Your task to perform on an android device: stop showing notifications on the lock screen Image 0: 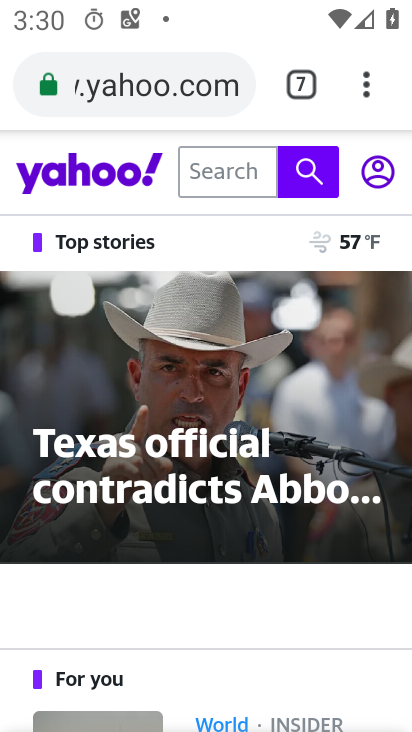
Step 0: press home button
Your task to perform on an android device: stop showing notifications on the lock screen Image 1: 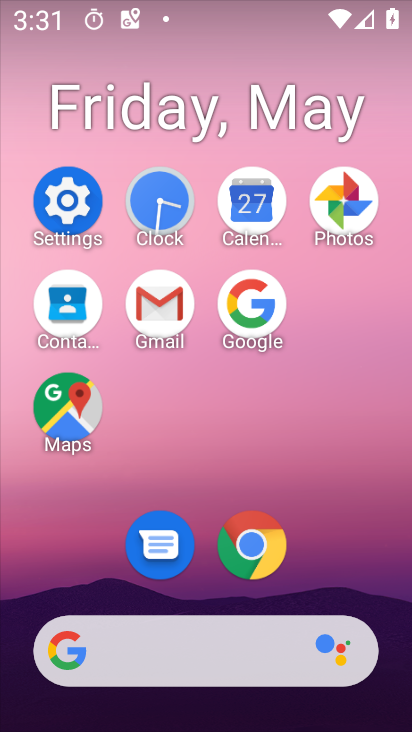
Step 1: click (95, 219)
Your task to perform on an android device: stop showing notifications on the lock screen Image 2: 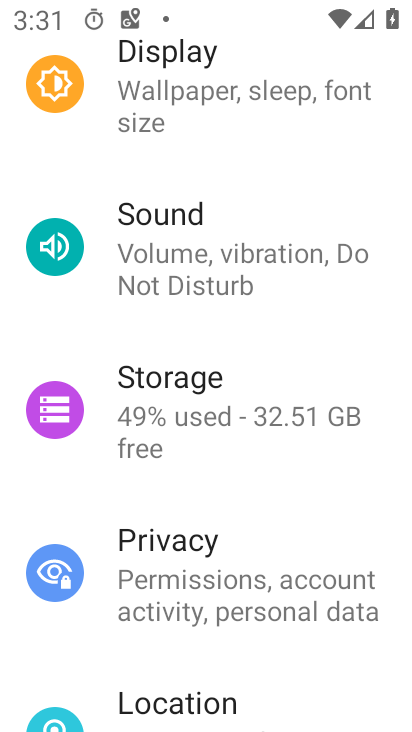
Step 2: drag from (244, 644) to (288, 231)
Your task to perform on an android device: stop showing notifications on the lock screen Image 3: 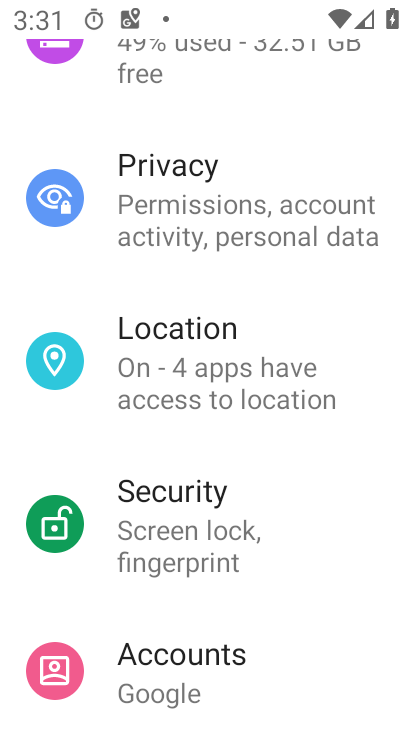
Step 3: drag from (277, 285) to (308, 728)
Your task to perform on an android device: stop showing notifications on the lock screen Image 4: 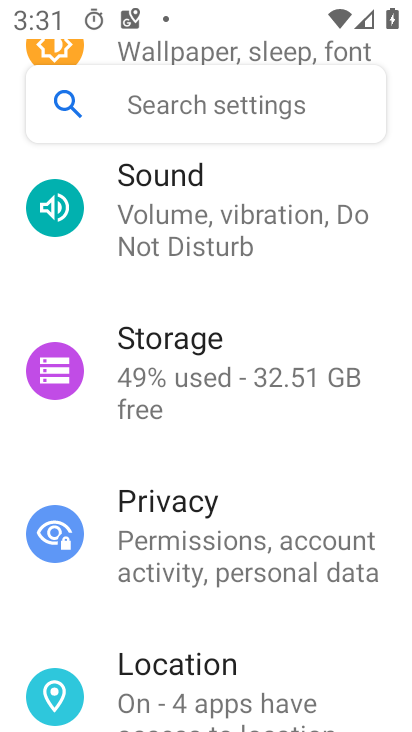
Step 4: drag from (266, 219) to (296, 712)
Your task to perform on an android device: stop showing notifications on the lock screen Image 5: 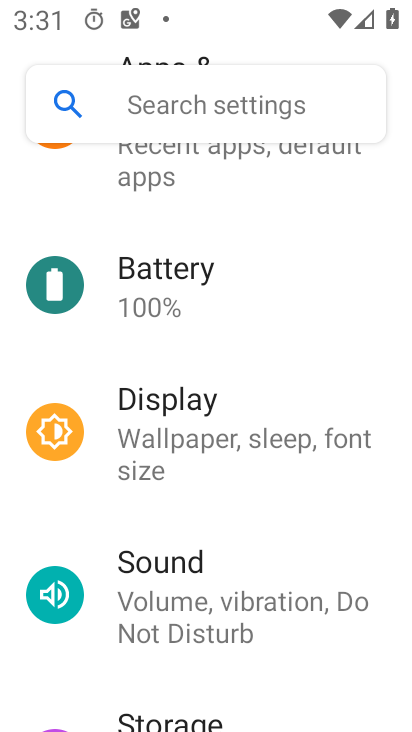
Step 5: drag from (273, 253) to (282, 672)
Your task to perform on an android device: stop showing notifications on the lock screen Image 6: 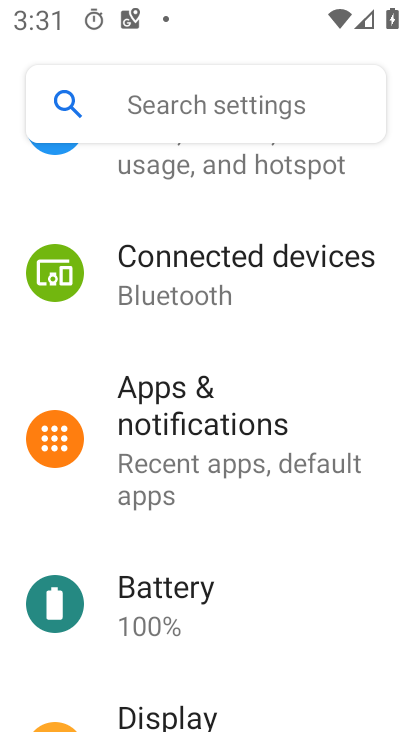
Step 6: drag from (244, 231) to (285, 596)
Your task to perform on an android device: stop showing notifications on the lock screen Image 7: 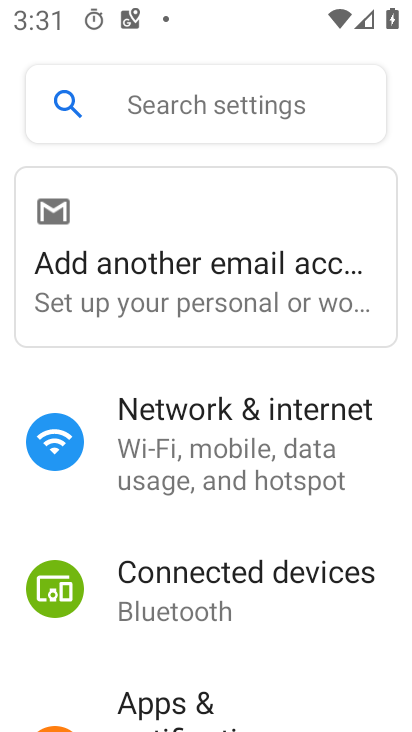
Step 7: drag from (282, 611) to (290, 210)
Your task to perform on an android device: stop showing notifications on the lock screen Image 8: 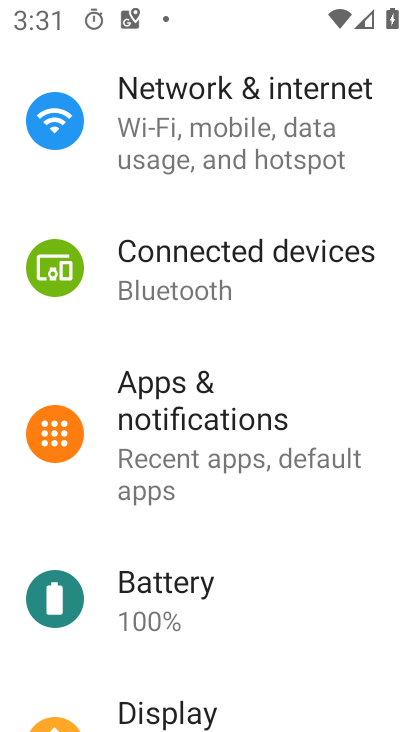
Step 8: click (219, 396)
Your task to perform on an android device: stop showing notifications on the lock screen Image 9: 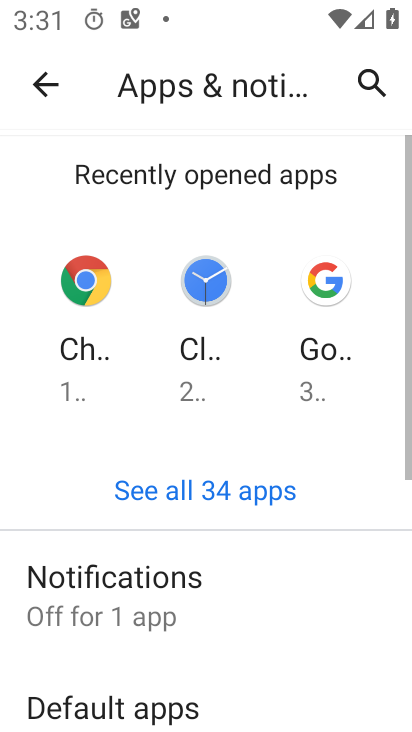
Step 9: click (203, 601)
Your task to perform on an android device: stop showing notifications on the lock screen Image 10: 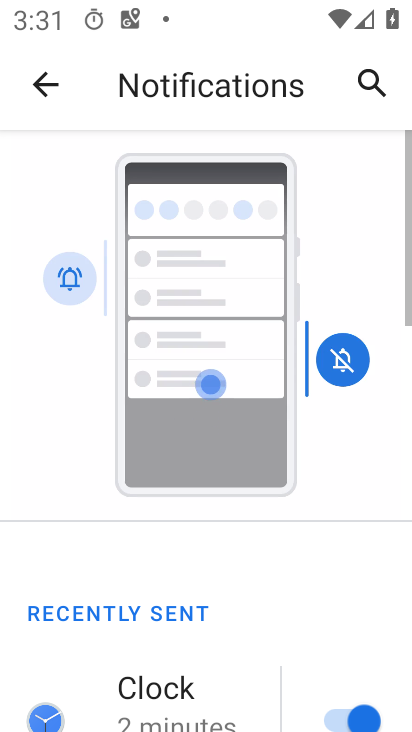
Step 10: drag from (201, 594) to (227, 193)
Your task to perform on an android device: stop showing notifications on the lock screen Image 11: 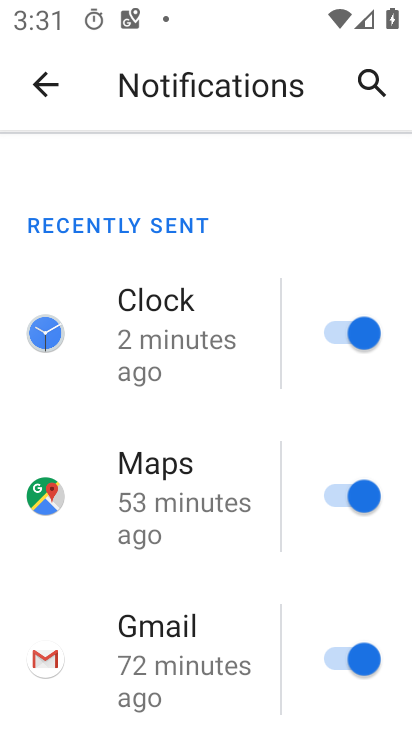
Step 11: drag from (247, 654) to (273, 203)
Your task to perform on an android device: stop showing notifications on the lock screen Image 12: 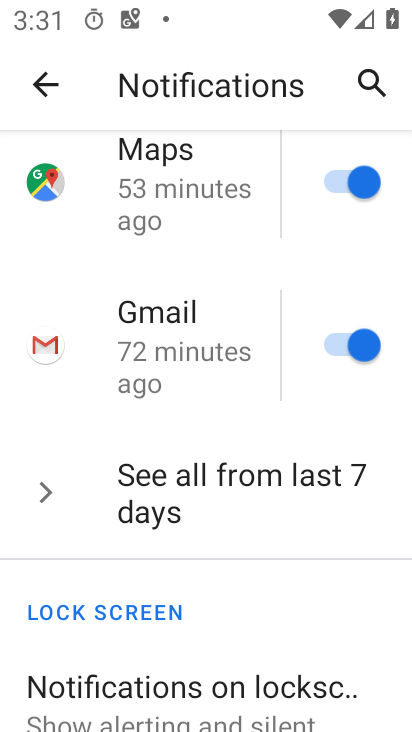
Step 12: drag from (251, 652) to (255, 295)
Your task to perform on an android device: stop showing notifications on the lock screen Image 13: 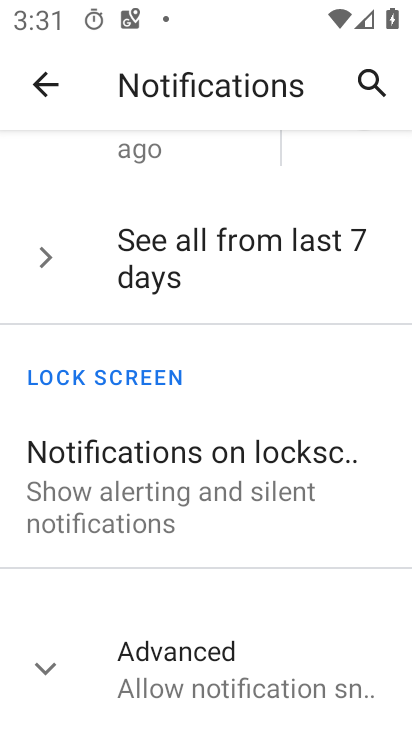
Step 13: click (212, 480)
Your task to perform on an android device: stop showing notifications on the lock screen Image 14: 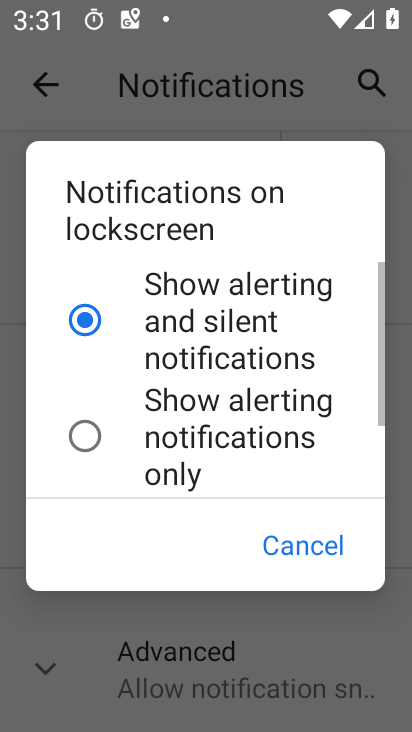
Step 14: drag from (205, 422) to (235, 192)
Your task to perform on an android device: stop showing notifications on the lock screen Image 15: 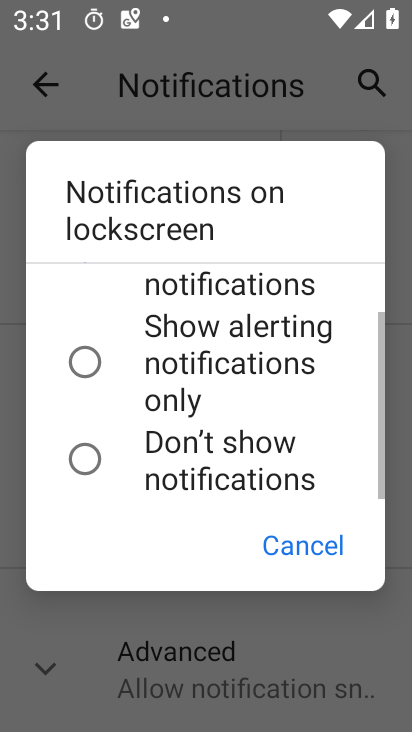
Step 15: click (198, 458)
Your task to perform on an android device: stop showing notifications on the lock screen Image 16: 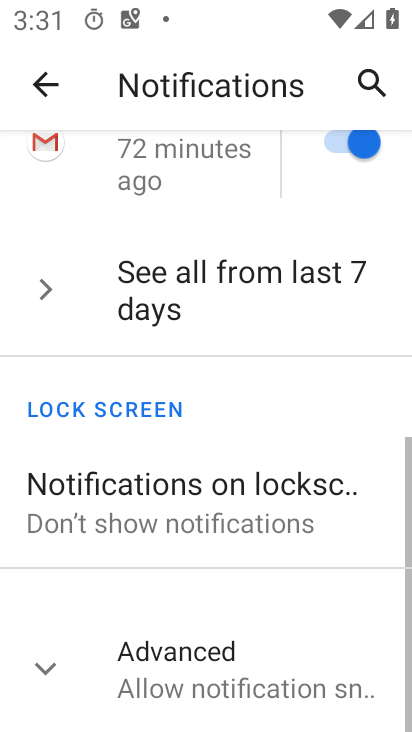
Step 16: task complete